Your task to perform on an android device: turn on location history Image 0: 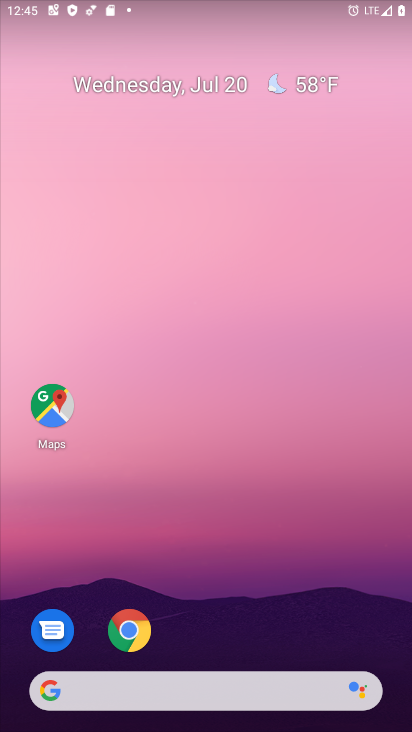
Step 0: drag from (218, 667) to (231, 151)
Your task to perform on an android device: turn on location history Image 1: 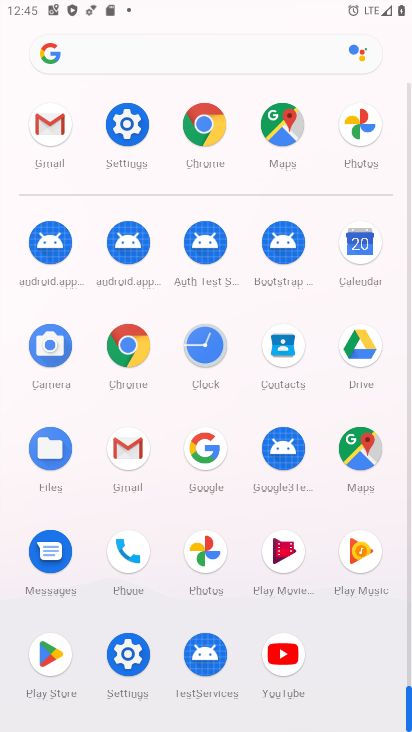
Step 1: click (129, 128)
Your task to perform on an android device: turn on location history Image 2: 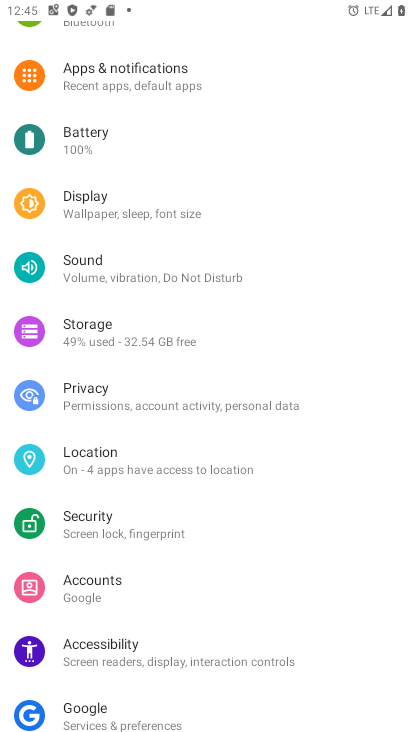
Step 2: click (138, 460)
Your task to perform on an android device: turn on location history Image 3: 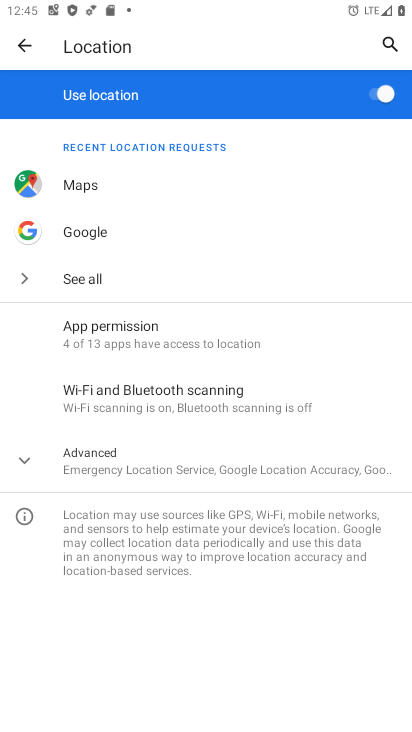
Step 3: task complete